Your task to perform on an android device: toggle translation in the chrome app Image 0: 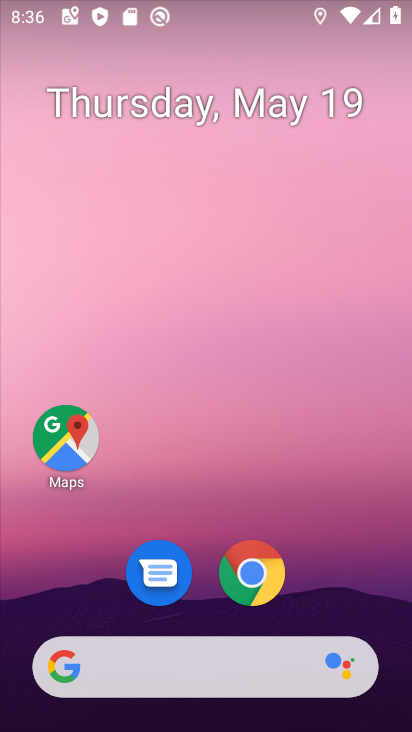
Step 0: click (256, 574)
Your task to perform on an android device: toggle translation in the chrome app Image 1: 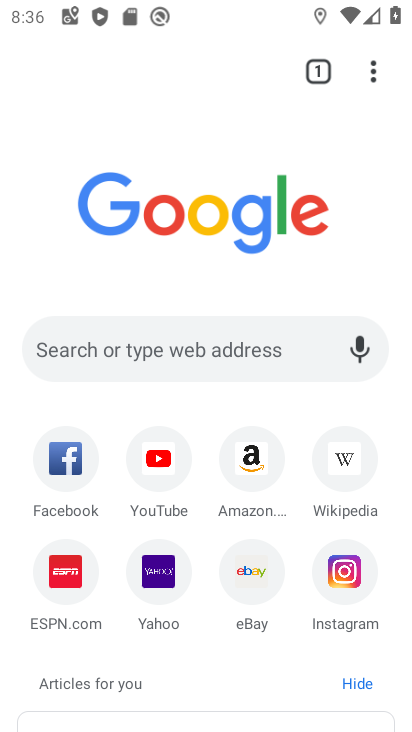
Step 1: click (375, 67)
Your task to perform on an android device: toggle translation in the chrome app Image 2: 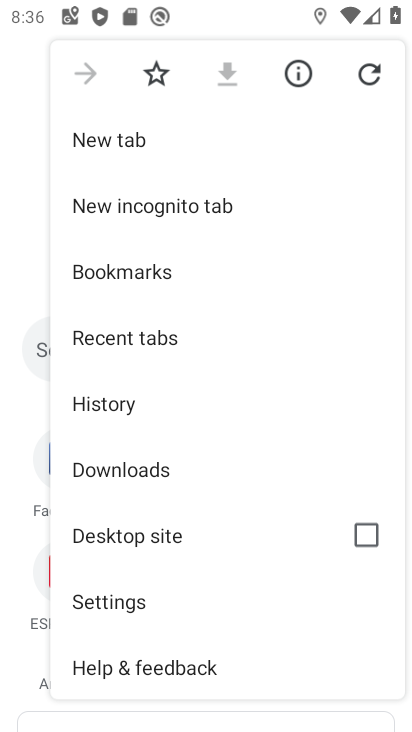
Step 2: drag from (191, 594) to (191, 322)
Your task to perform on an android device: toggle translation in the chrome app Image 3: 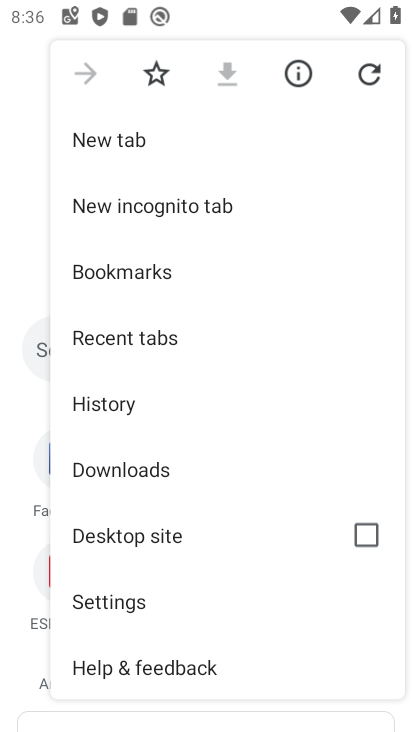
Step 3: click (81, 602)
Your task to perform on an android device: toggle translation in the chrome app Image 4: 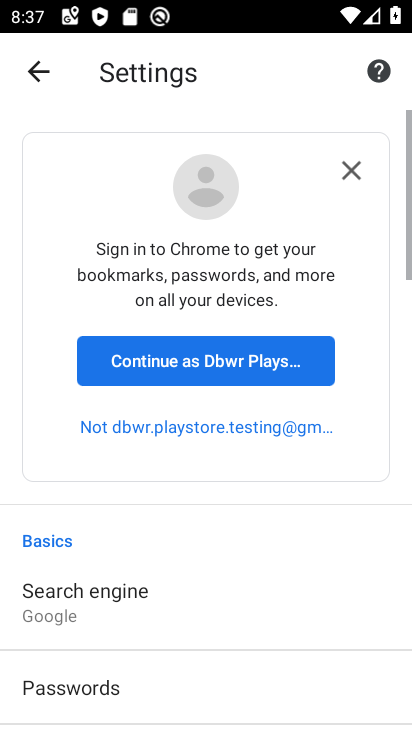
Step 4: drag from (179, 610) to (208, 126)
Your task to perform on an android device: toggle translation in the chrome app Image 5: 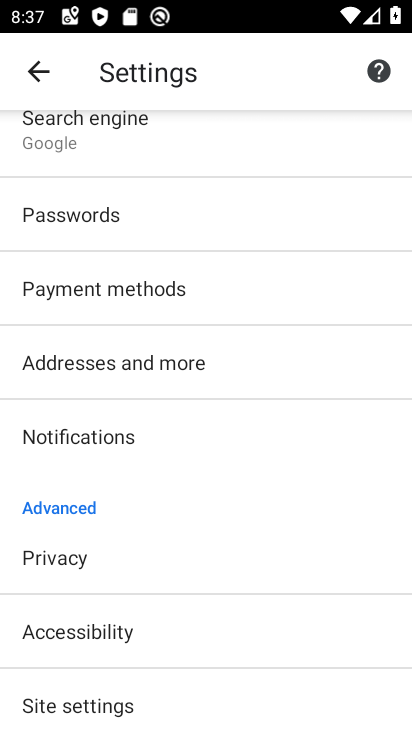
Step 5: drag from (187, 587) to (212, 256)
Your task to perform on an android device: toggle translation in the chrome app Image 6: 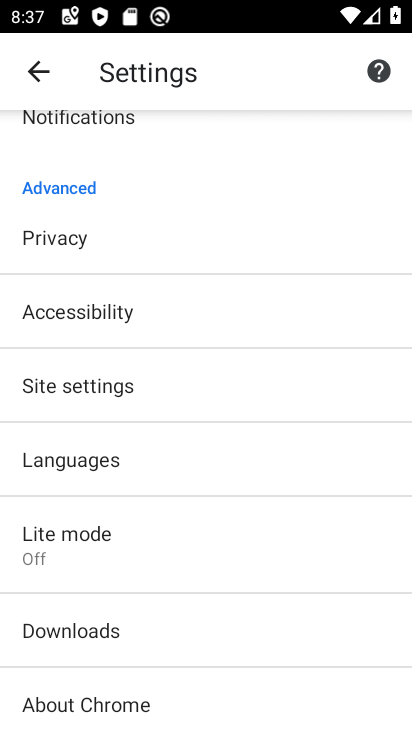
Step 6: click (98, 464)
Your task to perform on an android device: toggle translation in the chrome app Image 7: 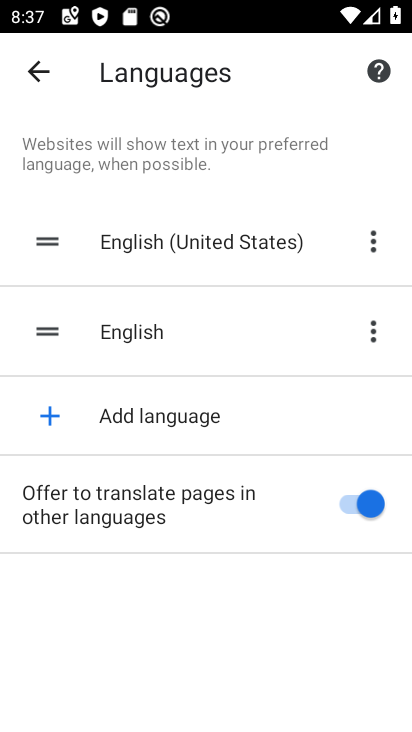
Step 7: click (355, 505)
Your task to perform on an android device: toggle translation in the chrome app Image 8: 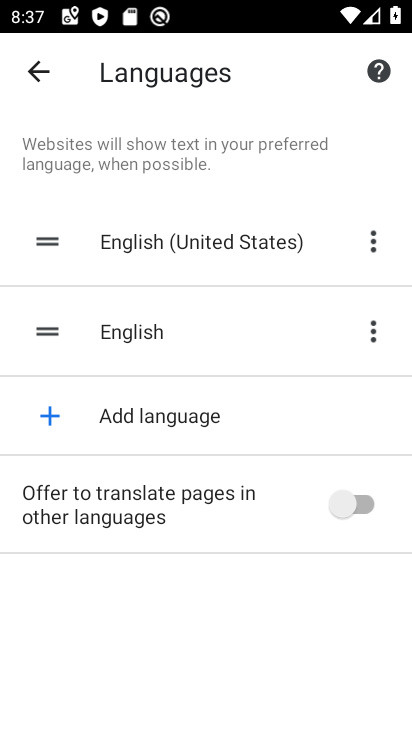
Step 8: task complete